Your task to perform on an android device: See recent photos Image 0: 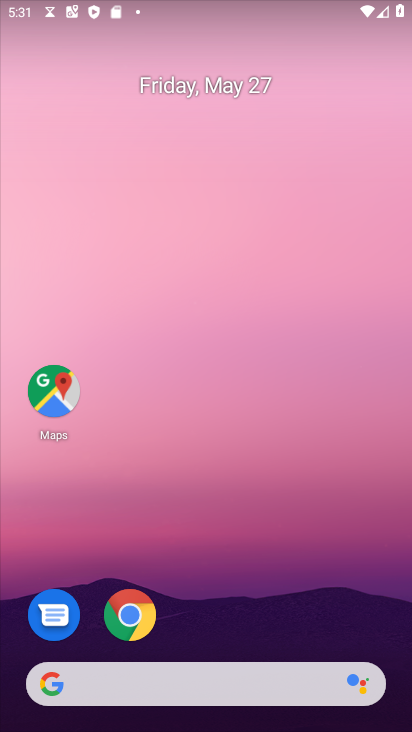
Step 0: drag from (319, 536) to (173, 41)
Your task to perform on an android device: See recent photos Image 1: 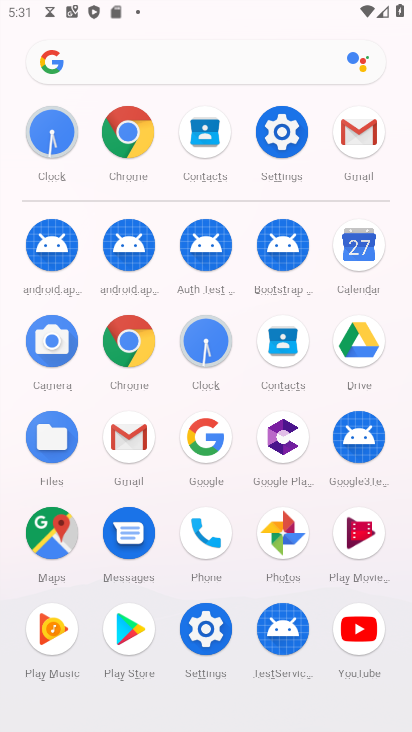
Step 1: click (299, 525)
Your task to perform on an android device: See recent photos Image 2: 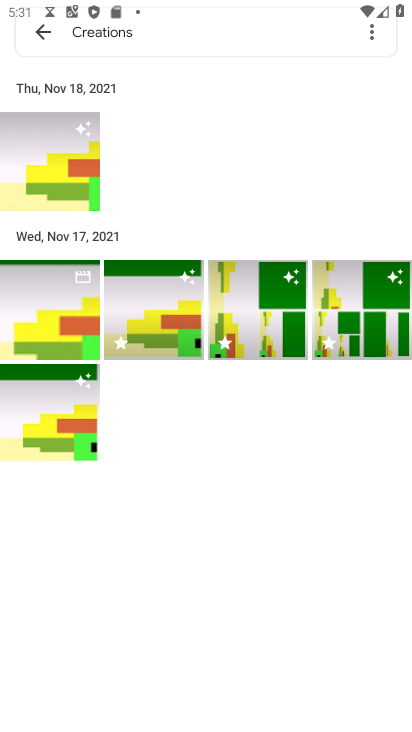
Step 2: click (159, 40)
Your task to perform on an android device: See recent photos Image 3: 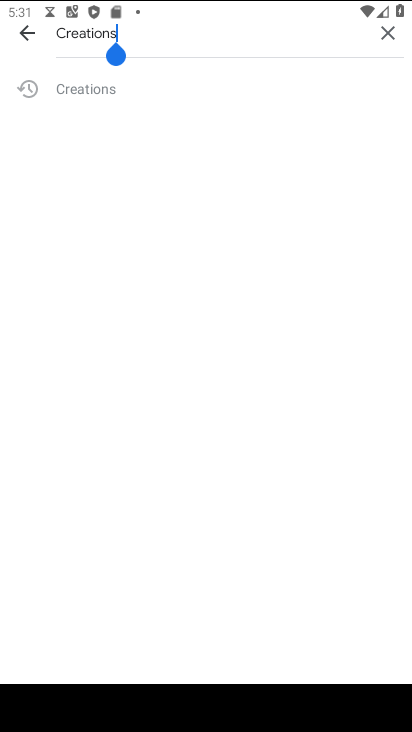
Step 3: click (389, 28)
Your task to perform on an android device: See recent photos Image 4: 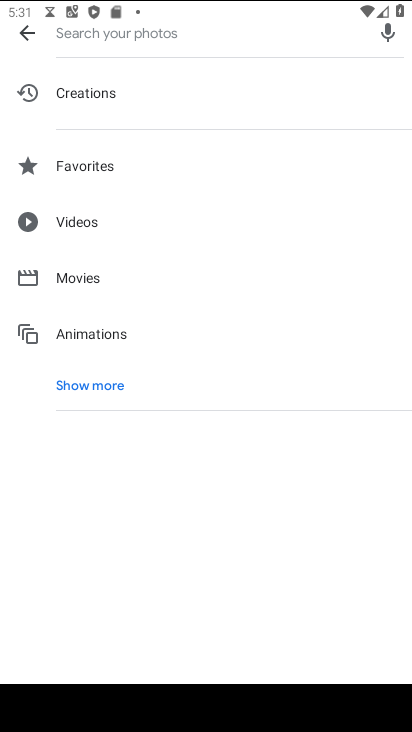
Step 4: type "recent"
Your task to perform on an android device: See recent photos Image 5: 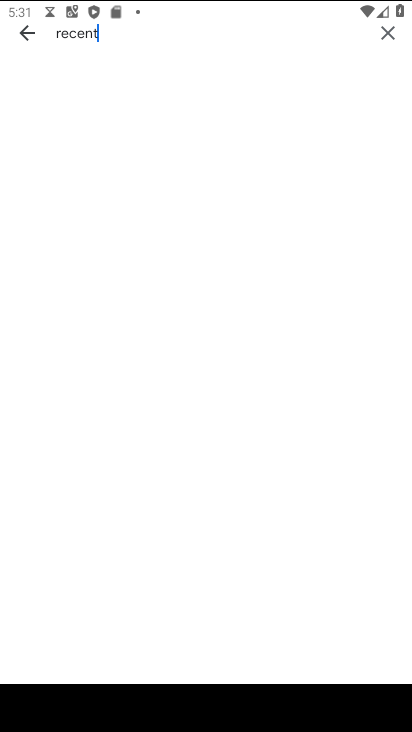
Step 5: type ""
Your task to perform on an android device: See recent photos Image 6: 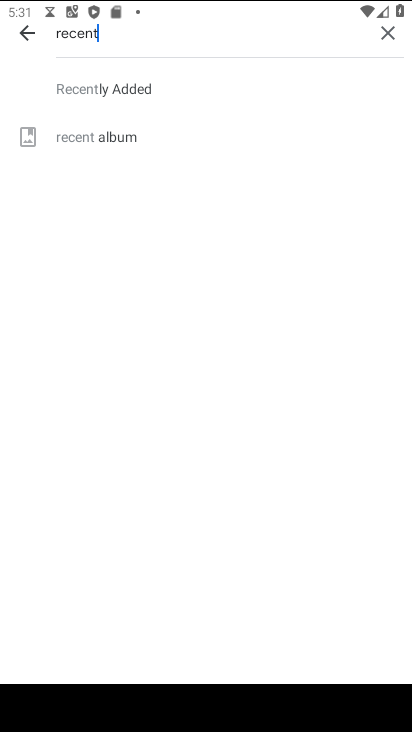
Step 6: click (159, 91)
Your task to perform on an android device: See recent photos Image 7: 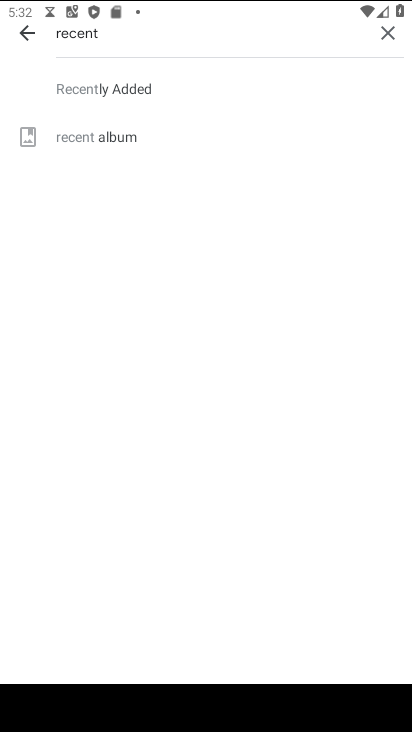
Step 7: click (135, 145)
Your task to perform on an android device: See recent photos Image 8: 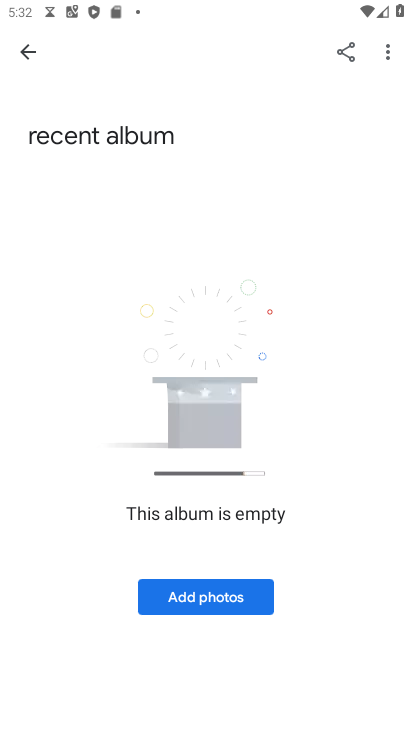
Step 8: task complete